Your task to perform on an android device: toggle javascript in the chrome app Image 0: 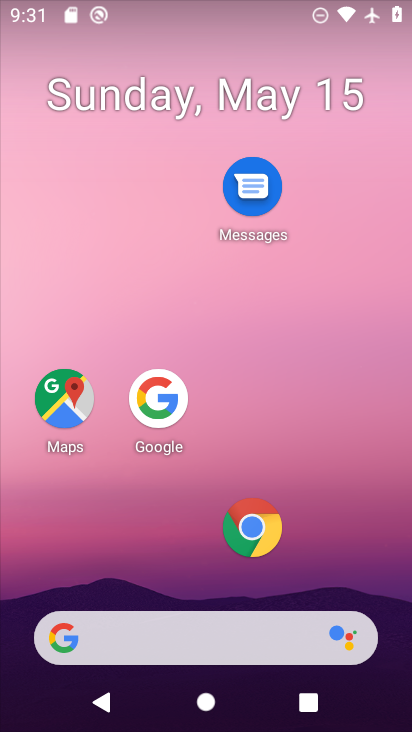
Step 0: click (257, 528)
Your task to perform on an android device: toggle javascript in the chrome app Image 1: 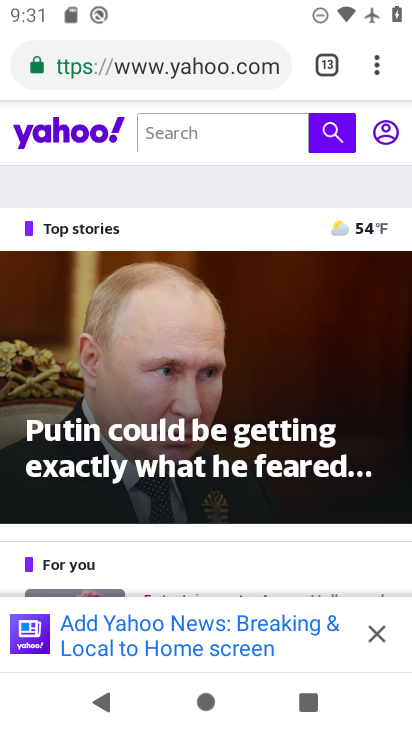
Step 1: drag from (380, 68) to (219, 571)
Your task to perform on an android device: toggle javascript in the chrome app Image 2: 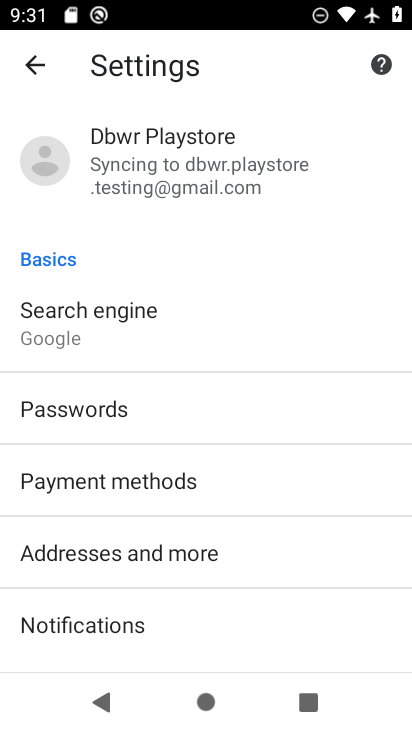
Step 2: drag from (157, 610) to (313, 256)
Your task to perform on an android device: toggle javascript in the chrome app Image 3: 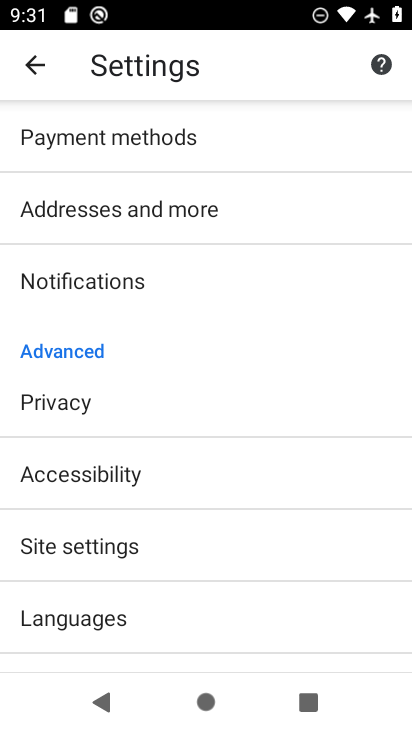
Step 3: click (72, 555)
Your task to perform on an android device: toggle javascript in the chrome app Image 4: 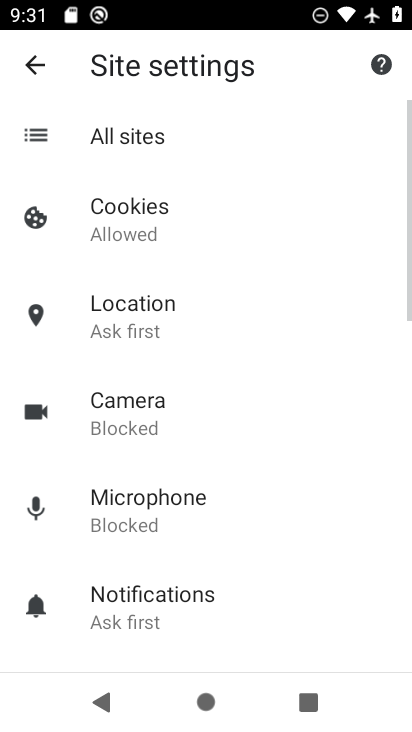
Step 4: drag from (262, 553) to (332, 208)
Your task to perform on an android device: toggle javascript in the chrome app Image 5: 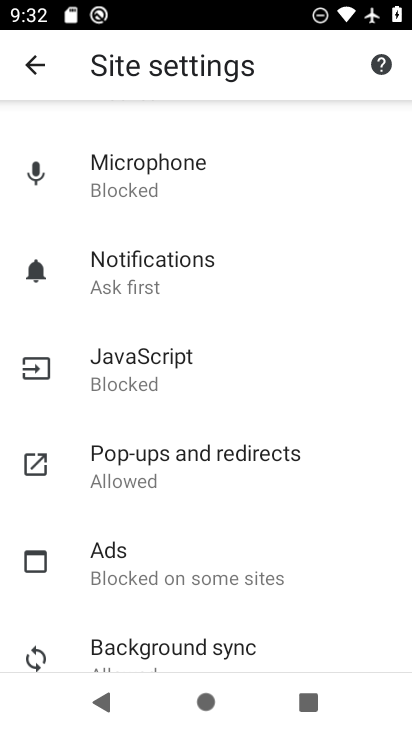
Step 5: click (146, 379)
Your task to perform on an android device: toggle javascript in the chrome app Image 6: 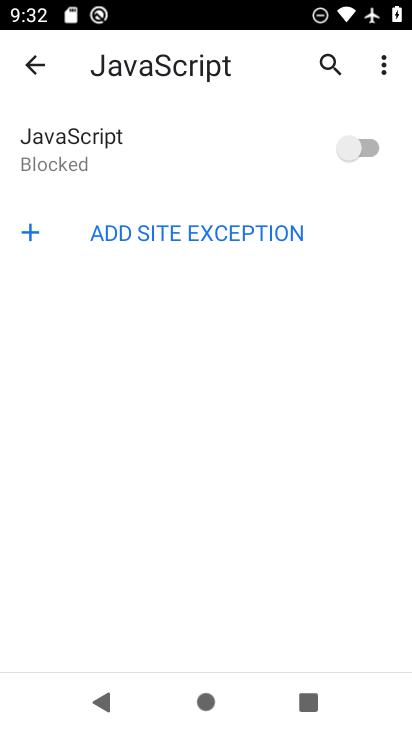
Step 6: click (367, 153)
Your task to perform on an android device: toggle javascript in the chrome app Image 7: 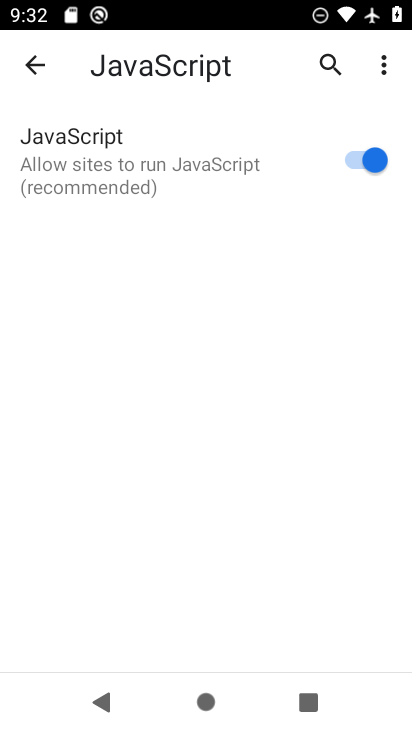
Step 7: task complete